Your task to perform on an android device: open app "ZOOM Cloud Meetings" (install if not already installed), go to login, and select forgot password Image 0: 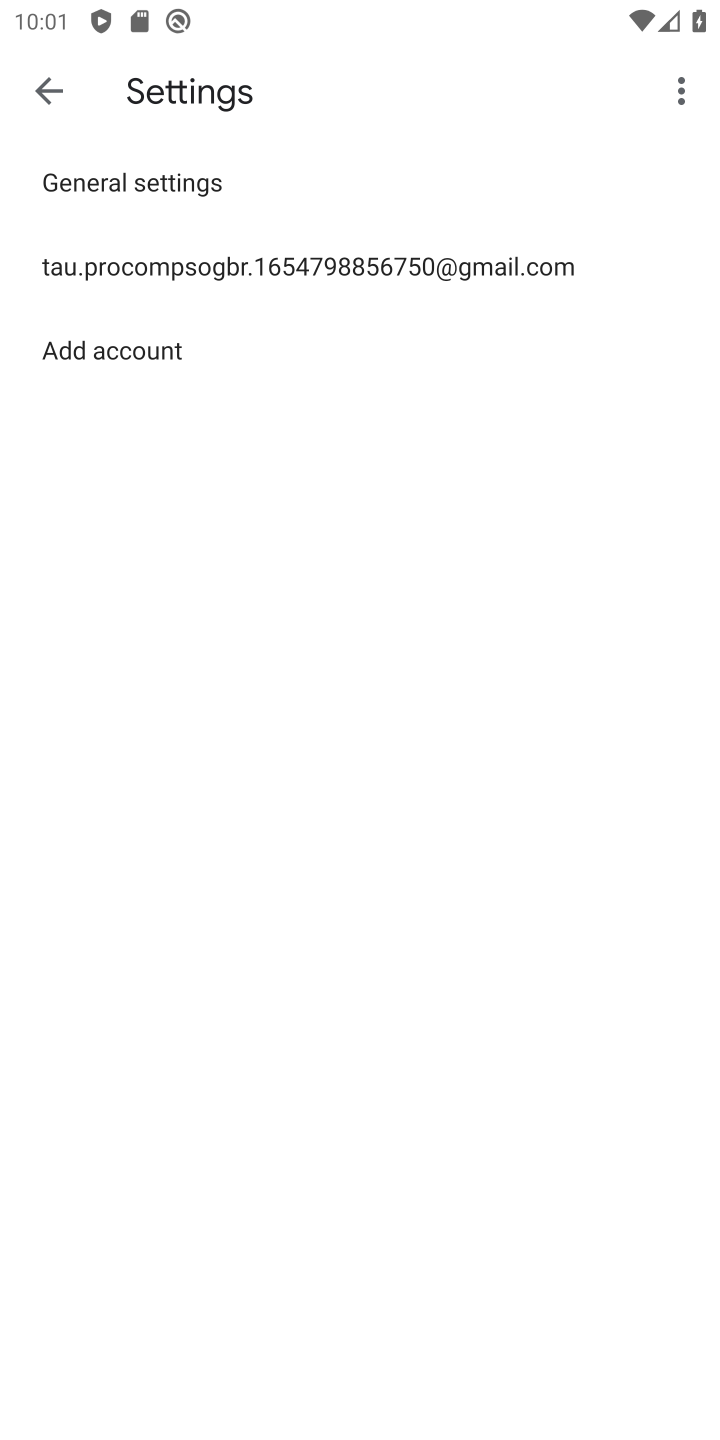
Step 0: press back button
Your task to perform on an android device: open app "ZOOM Cloud Meetings" (install if not already installed), go to login, and select forgot password Image 1: 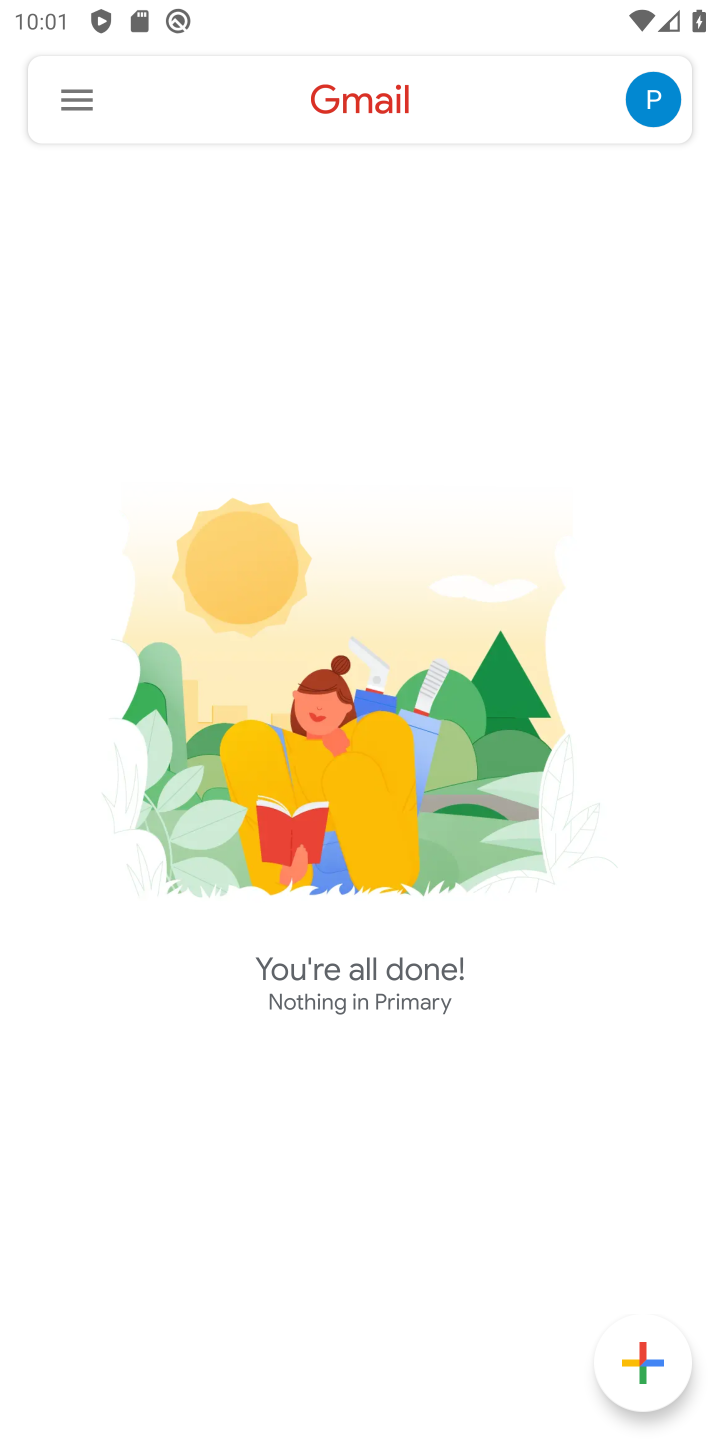
Step 1: press home button
Your task to perform on an android device: open app "ZOOM Cloud Meetings" (install if not already installed), go to login, and select forgot password Image 2: 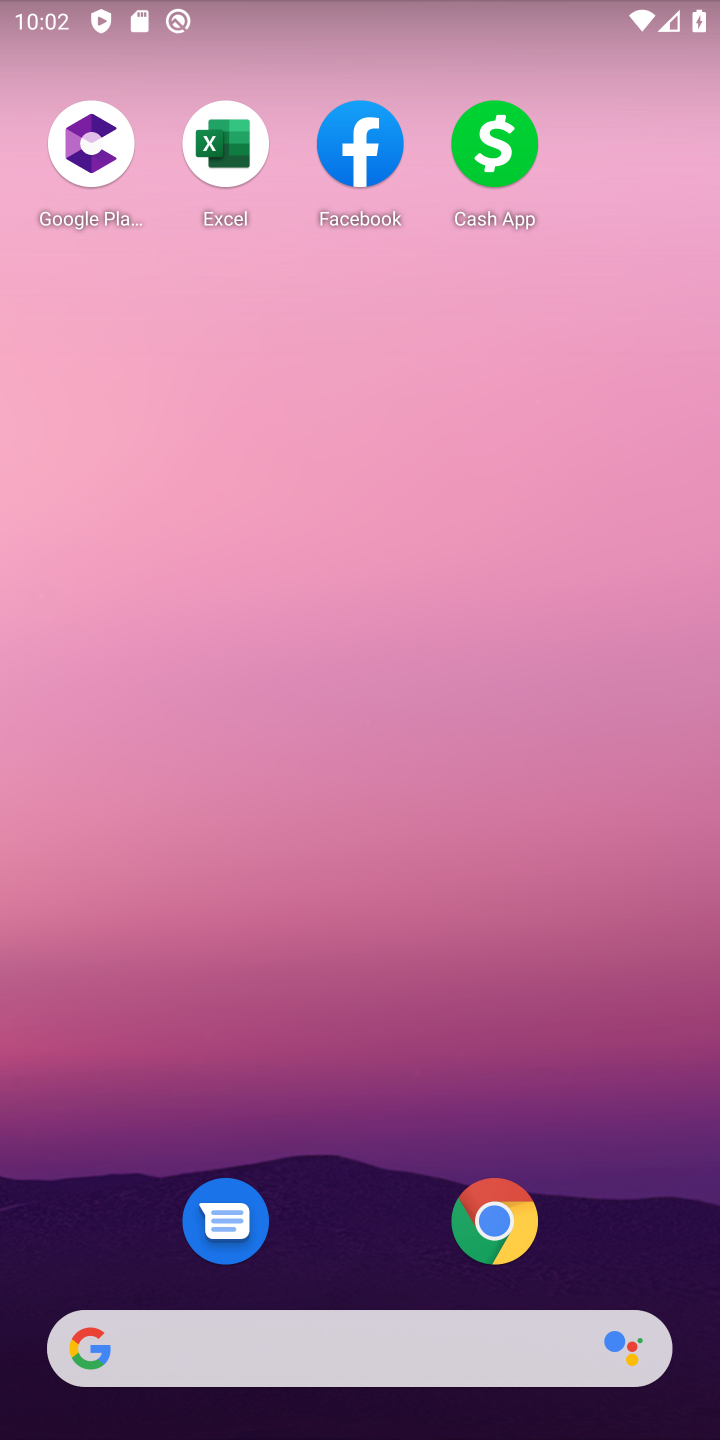
Step 2: drag from (387, 1321) to (393, 442)
Your task to perform on an android device: open app "ZOOM Cloud Meetings" (install if not already installed), go to login, and select forgot password Image 3: 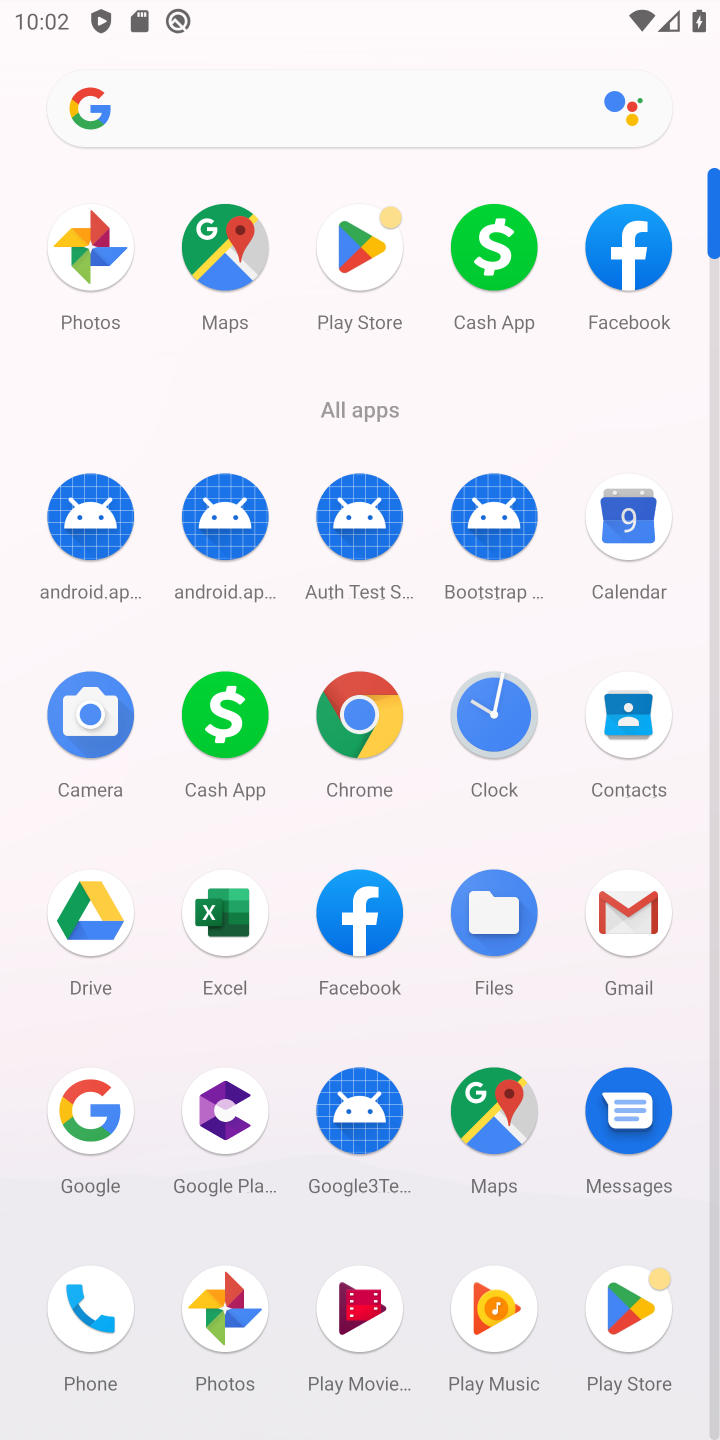
Step 3: click (638, 1307)
Your task to perform on an android device: open app "ZOOM Cloud Meetings" (install if not already installed), go to login, and select forgot password Image 4: 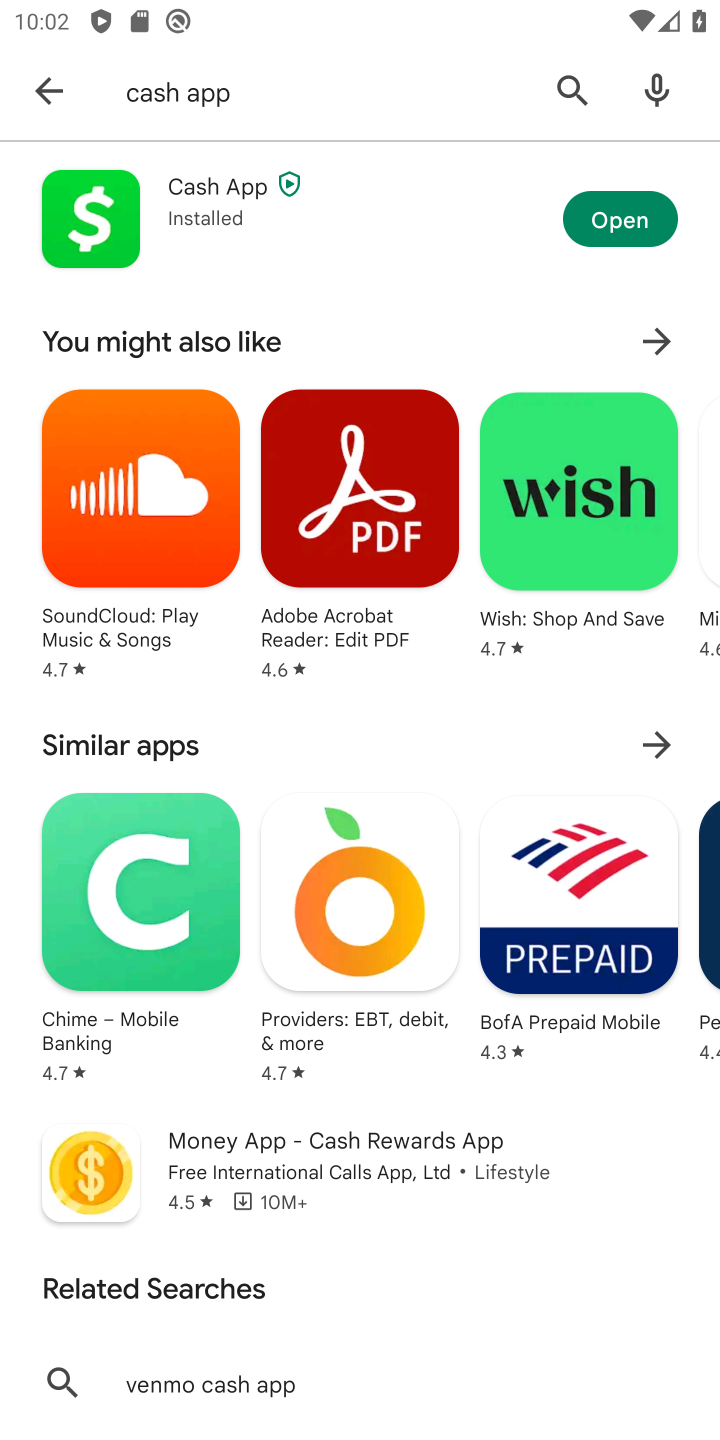
Step 4: click (680, 94)
Your task to perform on an android device: open app "ZOOM Cloud Meetings" (install if not already installed), go to login, and select forgot password Image 5: 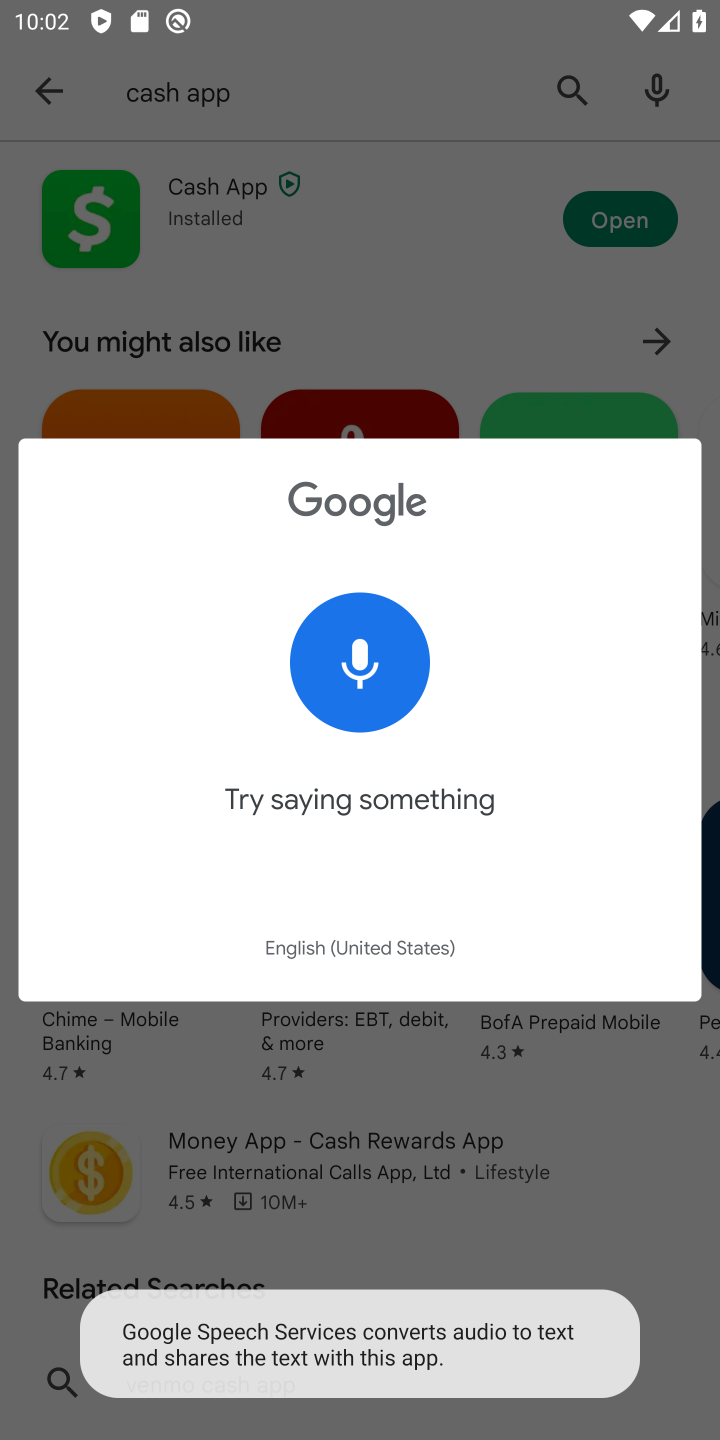
Step 5: click (265, 1030)
Your task to perform on an android device: open app "ZOOM Cloud Meetings" (install if not already installed), go to login, and select forgot password Image 6: 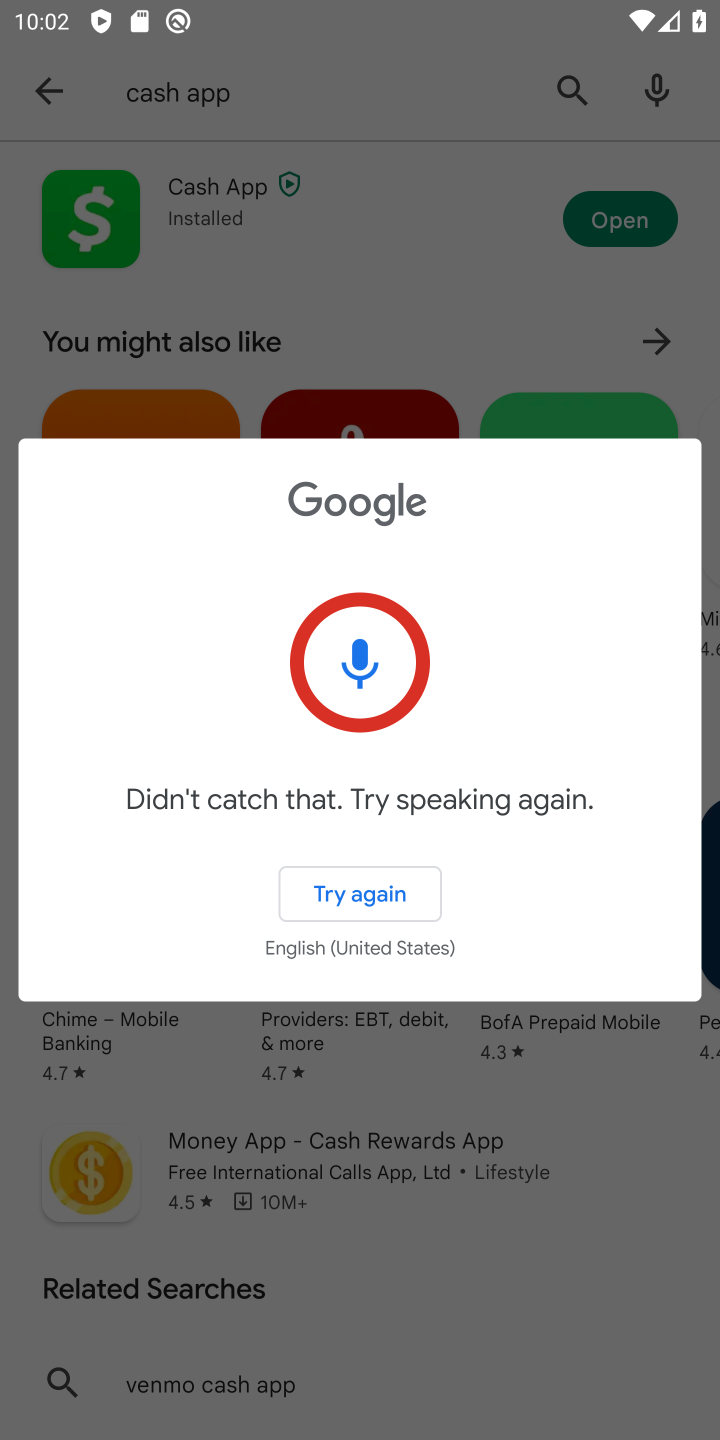
Step 6: click (202, 654)
Your task to perform on an android device: open app "ZOOM Cloud Meetings" (install if not already installed), go to login, and select forgot password Image 7: 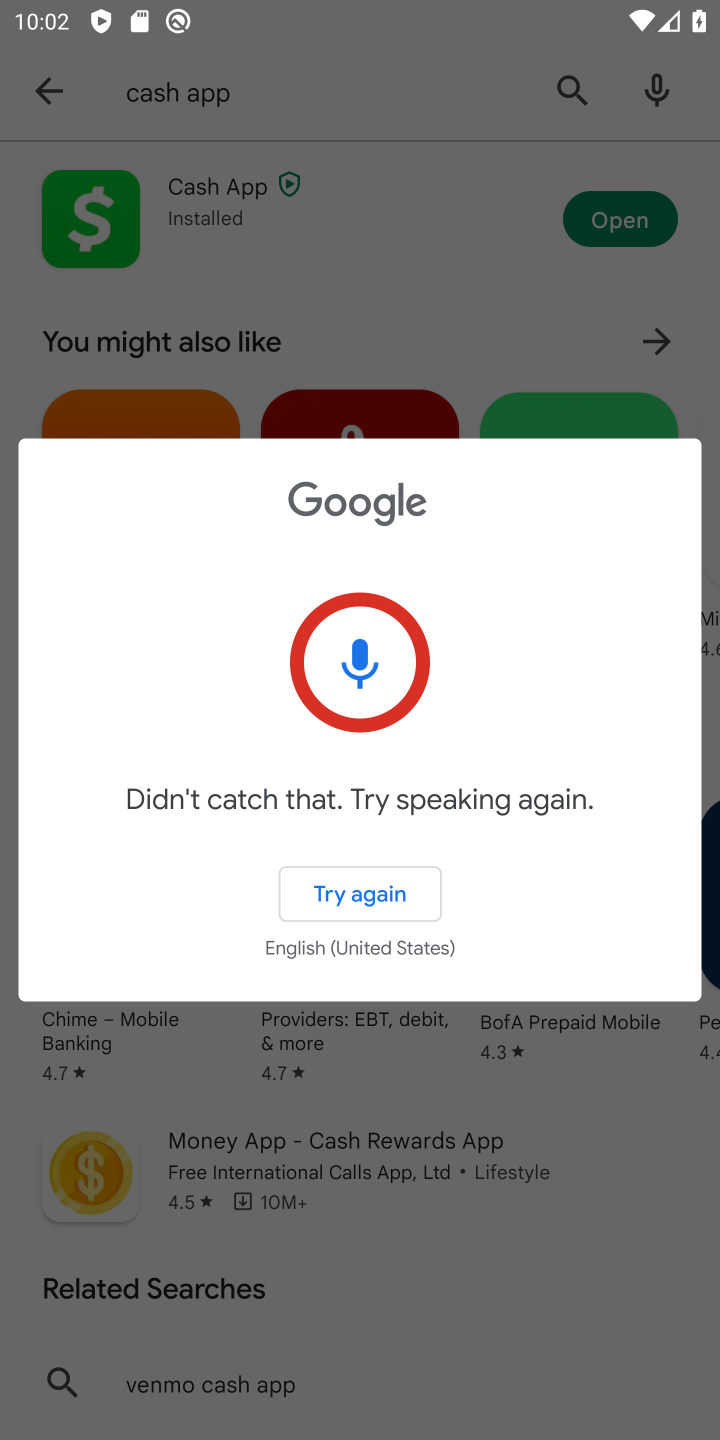
Step 7: click (342, 420)
Your task to perform on an android device: open app "ZOOM Cloud Meetings" (install if not already installed), go to login, and select forgot password Image 8: 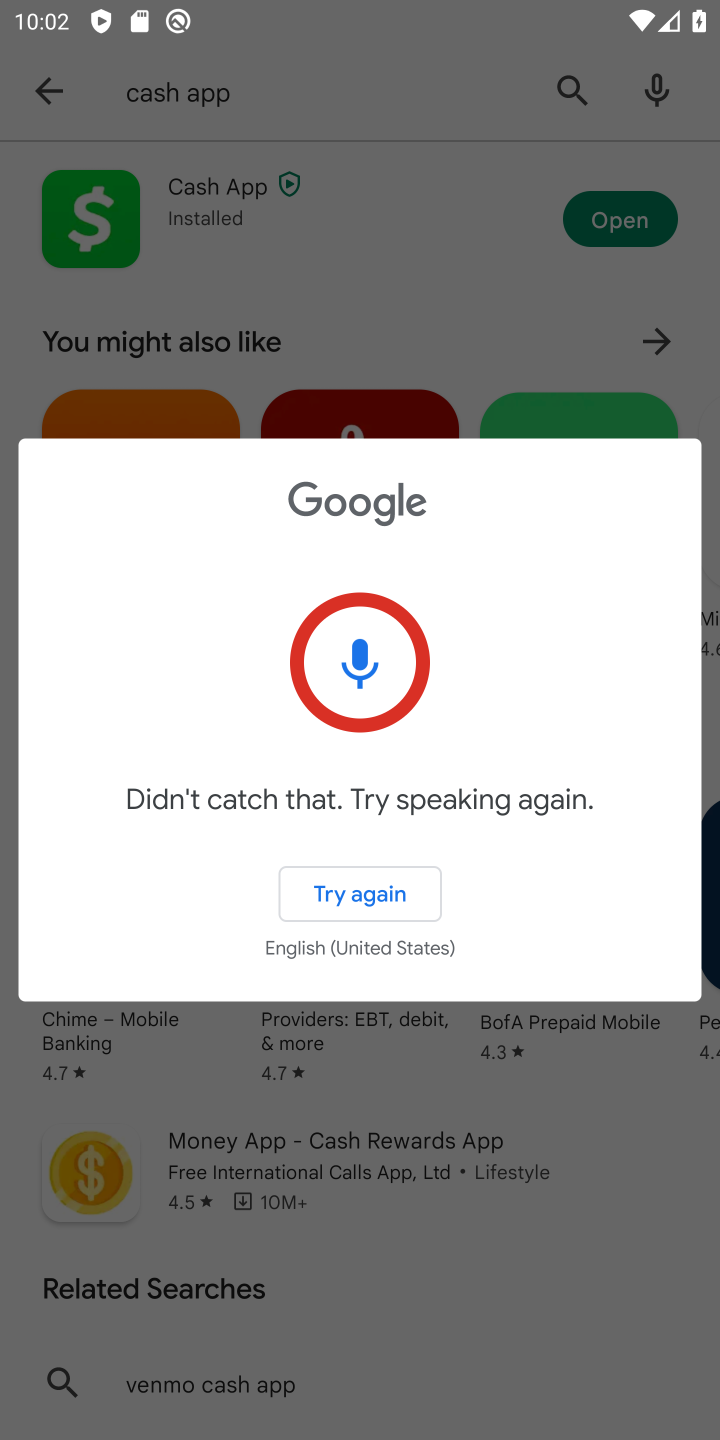
Step 8: click (253, 436)
Your task to perform on an android device: open app "ZOOM Cloud Meetings" (install if not already installed), go to login, and select forgot password Image 9: 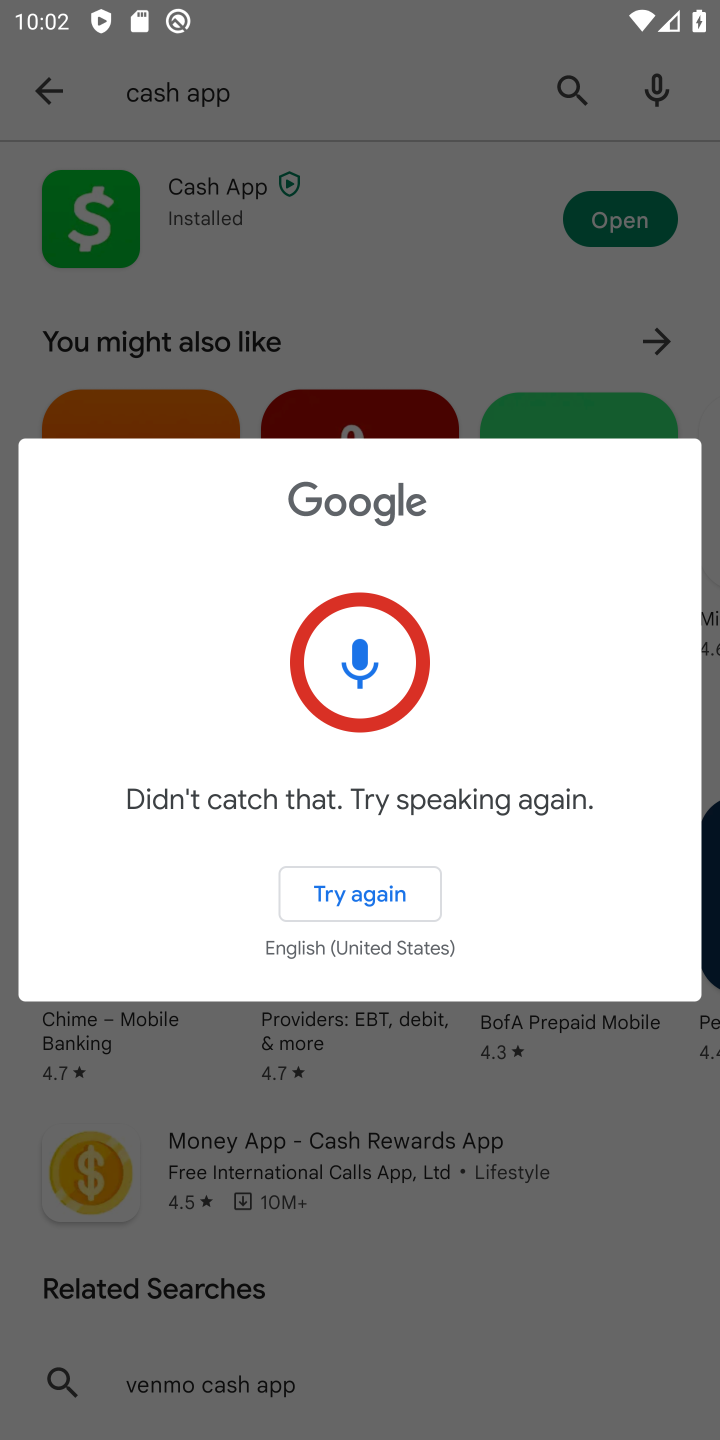
Step 9: click (708, 999)
Your task to perform on an android device: open app "ZOOM Cloud Meetings" (install if not already installed), go to login, and select forgot password Image 10: 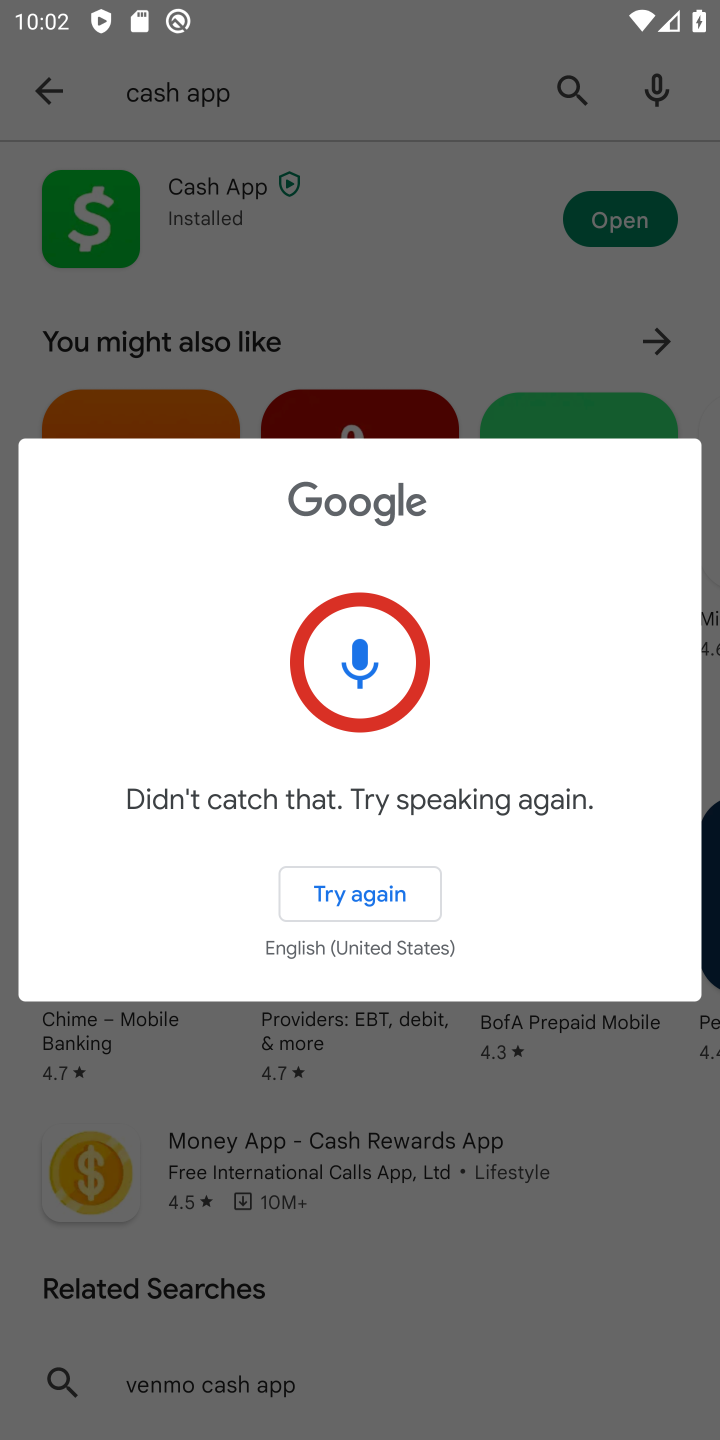
Step 10: click (570, 88)
Your task to perform on an android device: open app "ZOOM Cloud Meetings" (install if not already installed), go to login, and select forgot password Image 11: 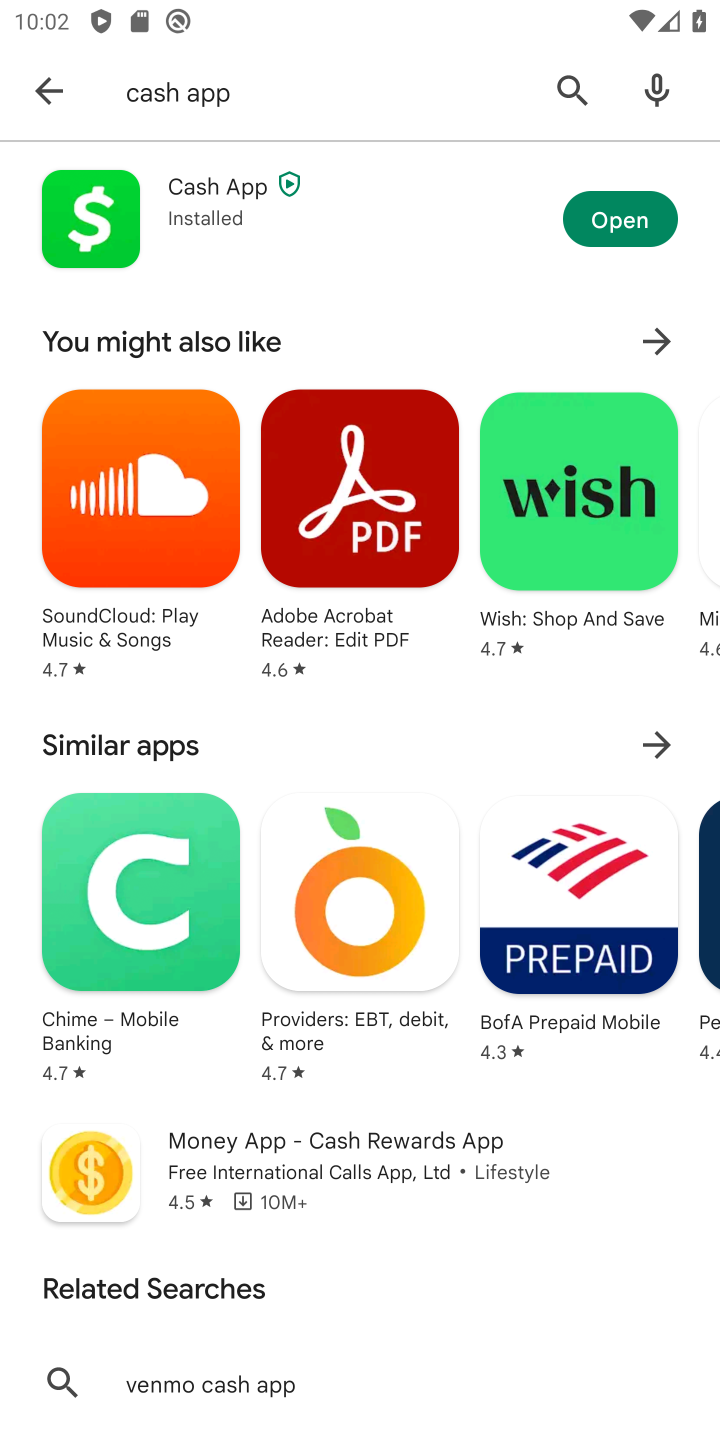
Step 11: click (568, 90)
Your task to perform on an android device: open app "ZOOM Cloud Meetings" (install if not already installed), go to login, and select forgot password Image 12: 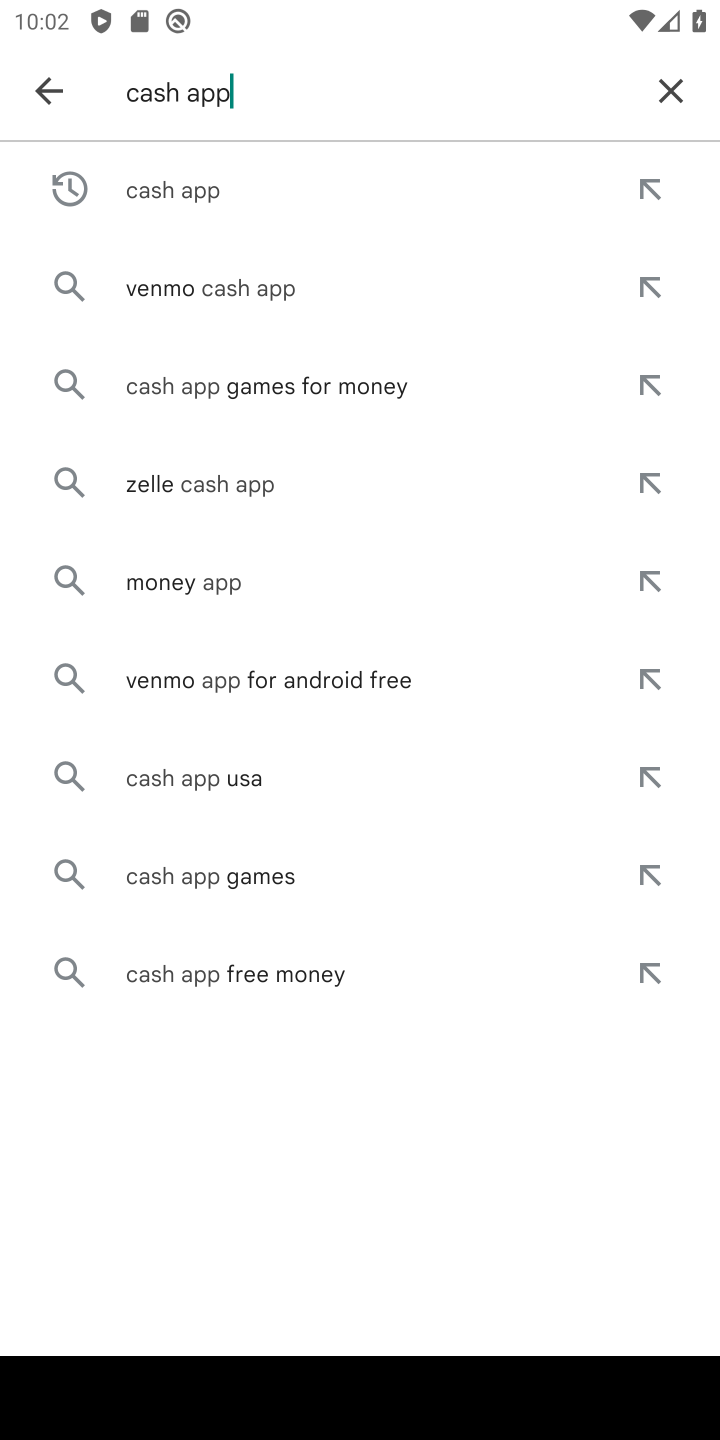
Step 12: click (651, 107)
Your task to perform on an android device: open app "ZOOM Cloud Meetings" (install if not already installed), go to login, and select forgot password Image 13: 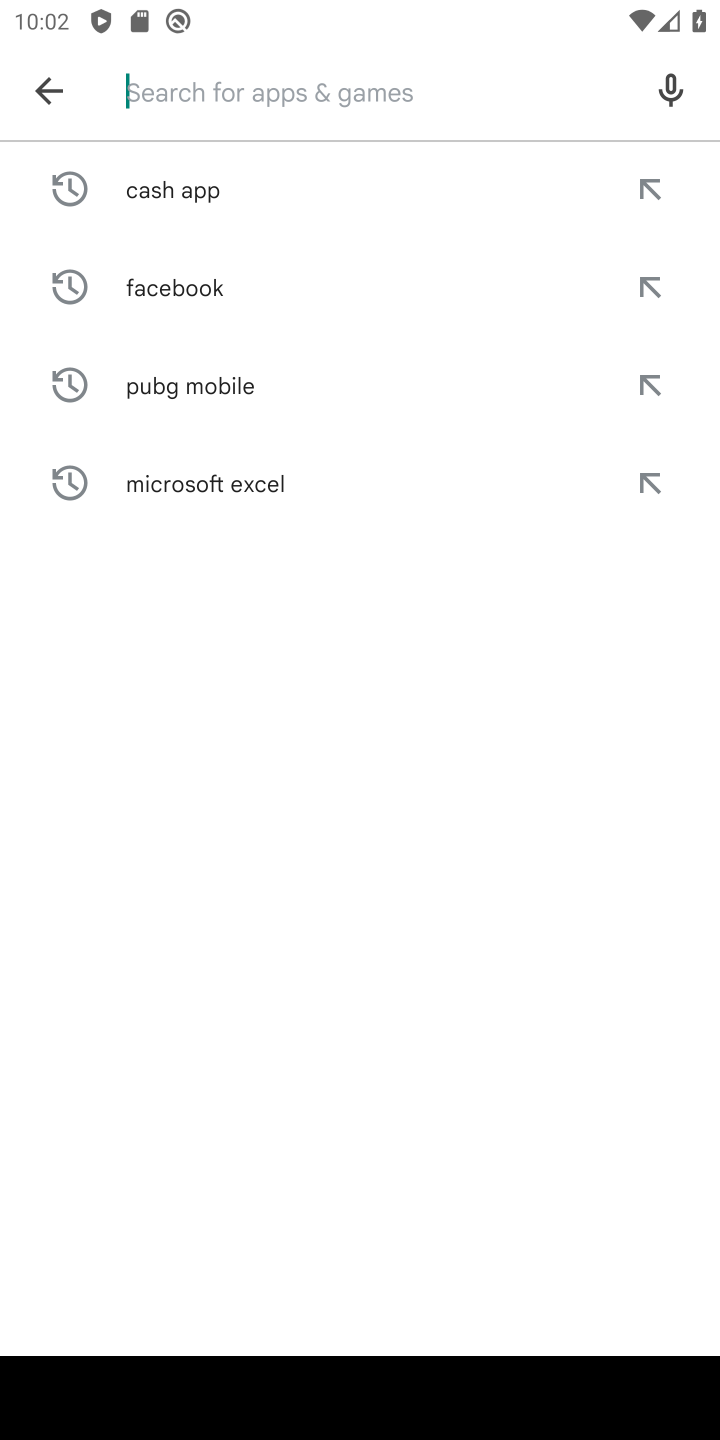
Step 13: type "ZOOM Cloud Meetings"
Your task to perform on an android device: open app "ZOOM Cloud Meetings" (install if not already installed), go to login, and select forgot password Image 14: 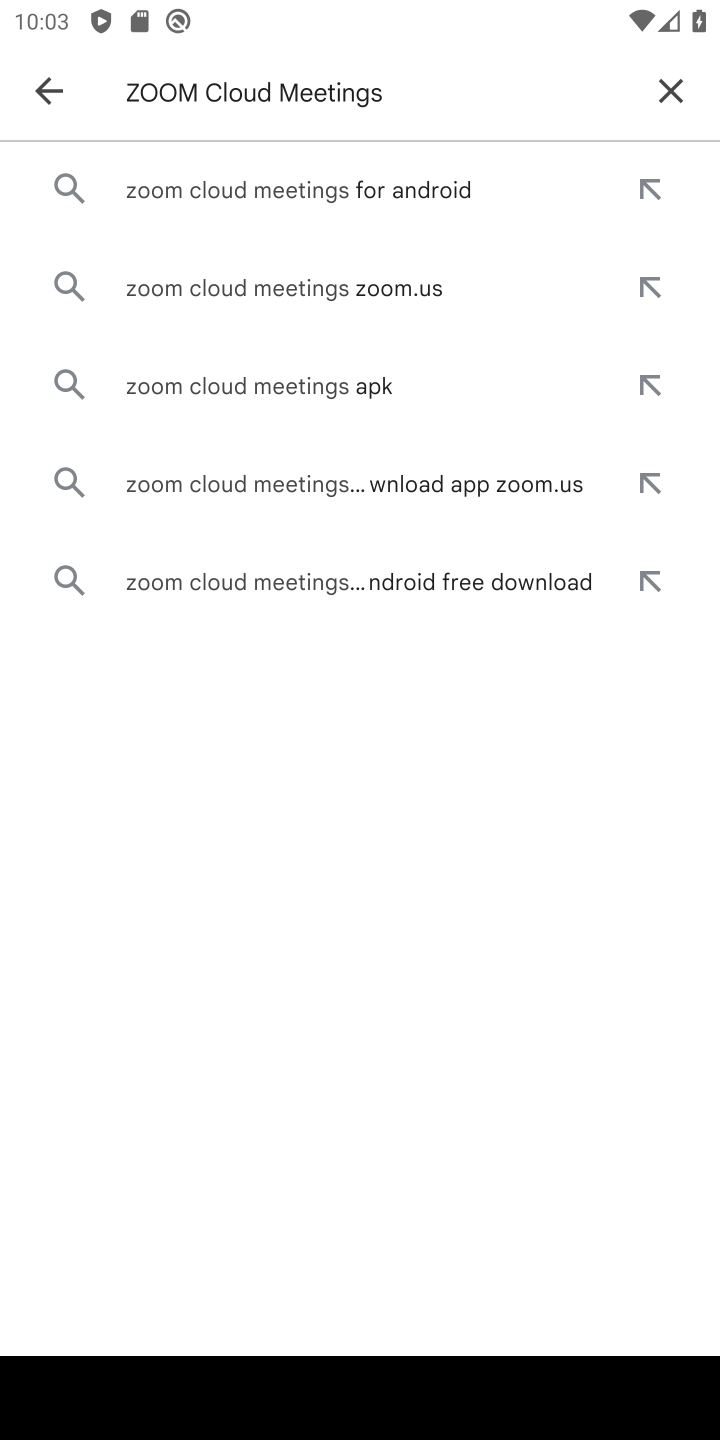
Step 14: click (423, 177)
Your task to perform on an android device: open app "ZOOM Cloud Meetings" (install if not already installed), go to login, and select forgot password Image 15: 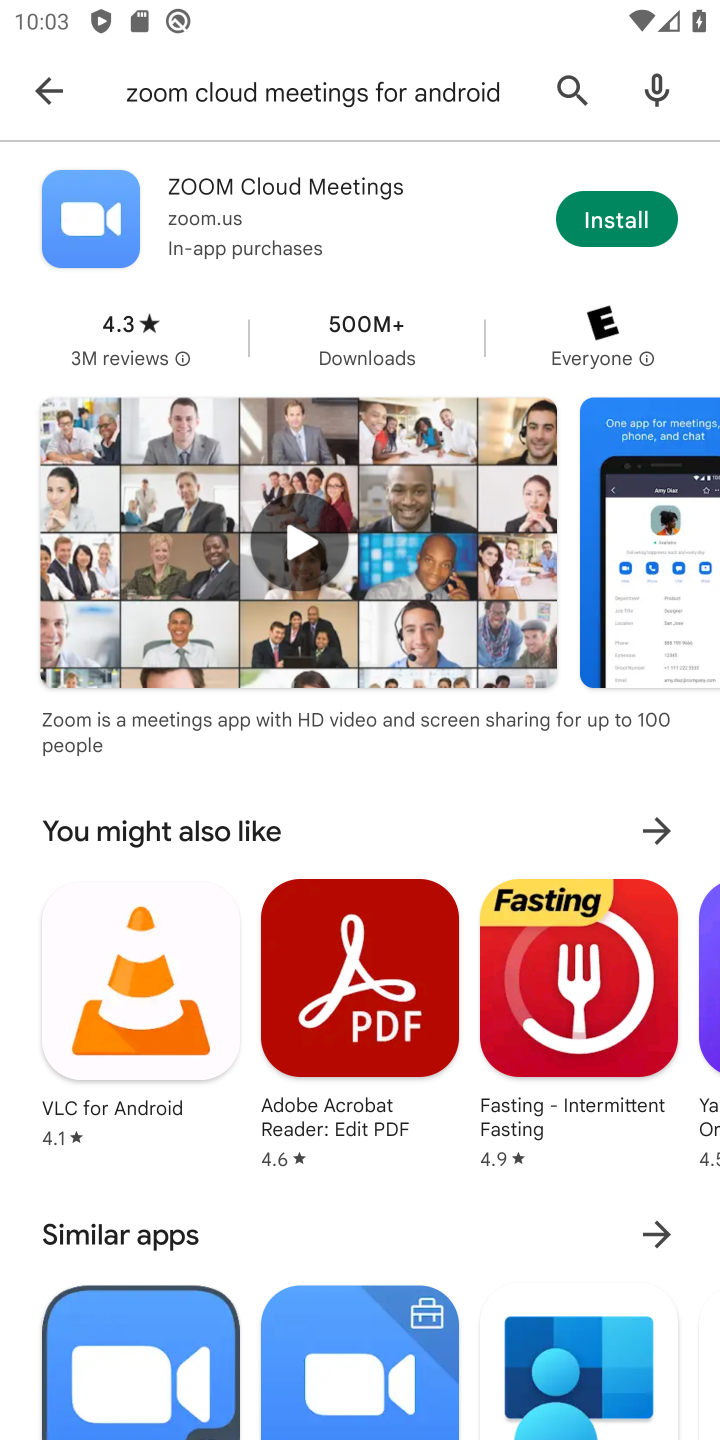
Step 15: click (573, 211)
Your task to perform on an android device: open app "ZOOM Cloud Meetings" (install if not already installed), go to login, and select forgot password Image 16: 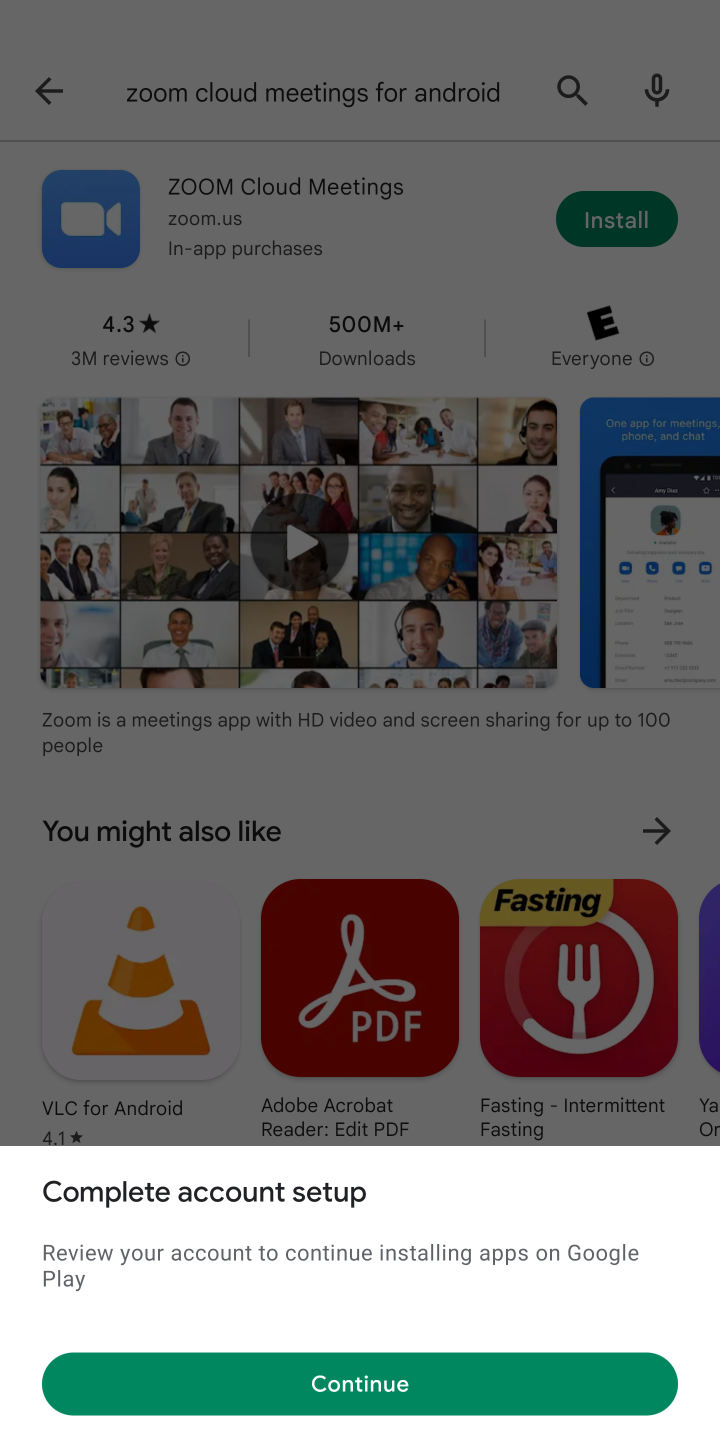
Step 16: click (365, 1391)
Your task to perform on an android device: open app "ZOOM Cloud Meetings" (install if not already installed), go to login, and select forgot password Image 17: 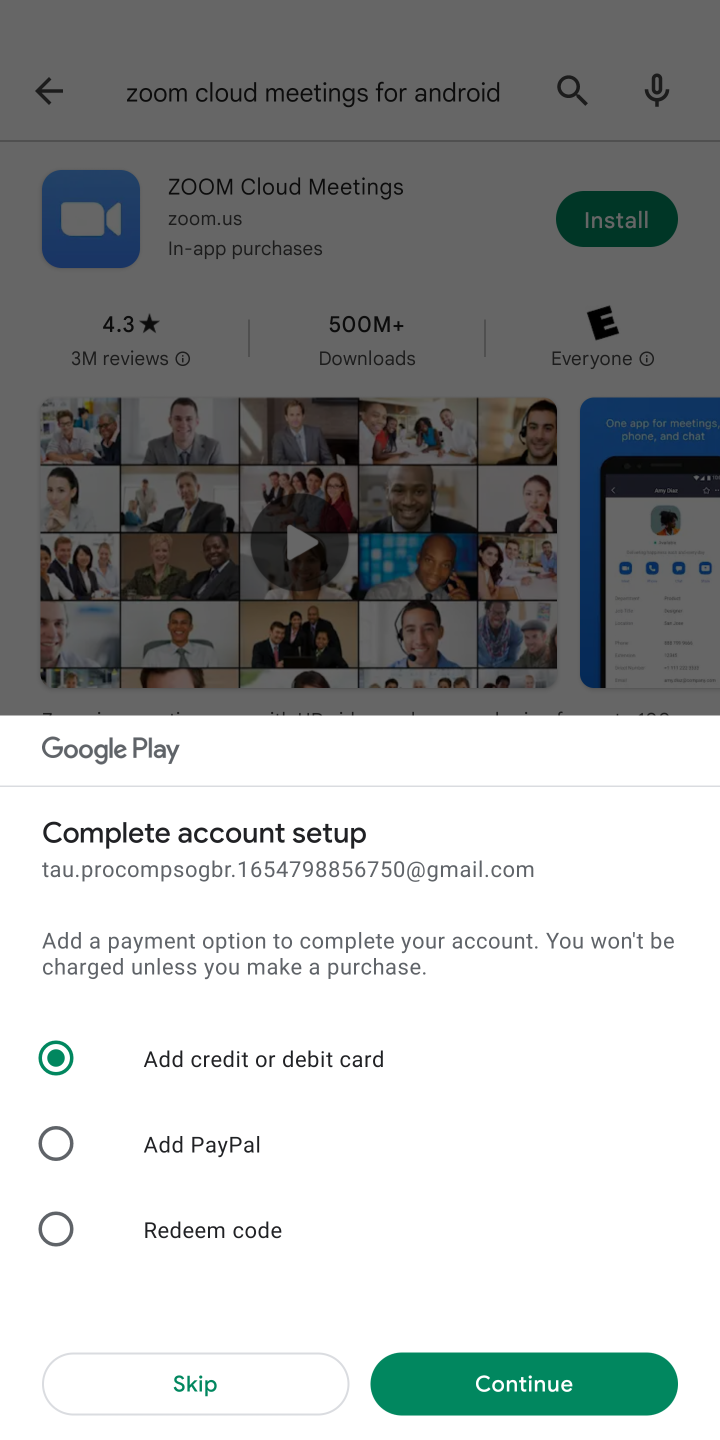
Step 17: click (242, 1384)
Your task to perform on an android device: open app "ZOOM Cloud Meetings" (install if not already installed), go to login, and select forgot password Image 18: 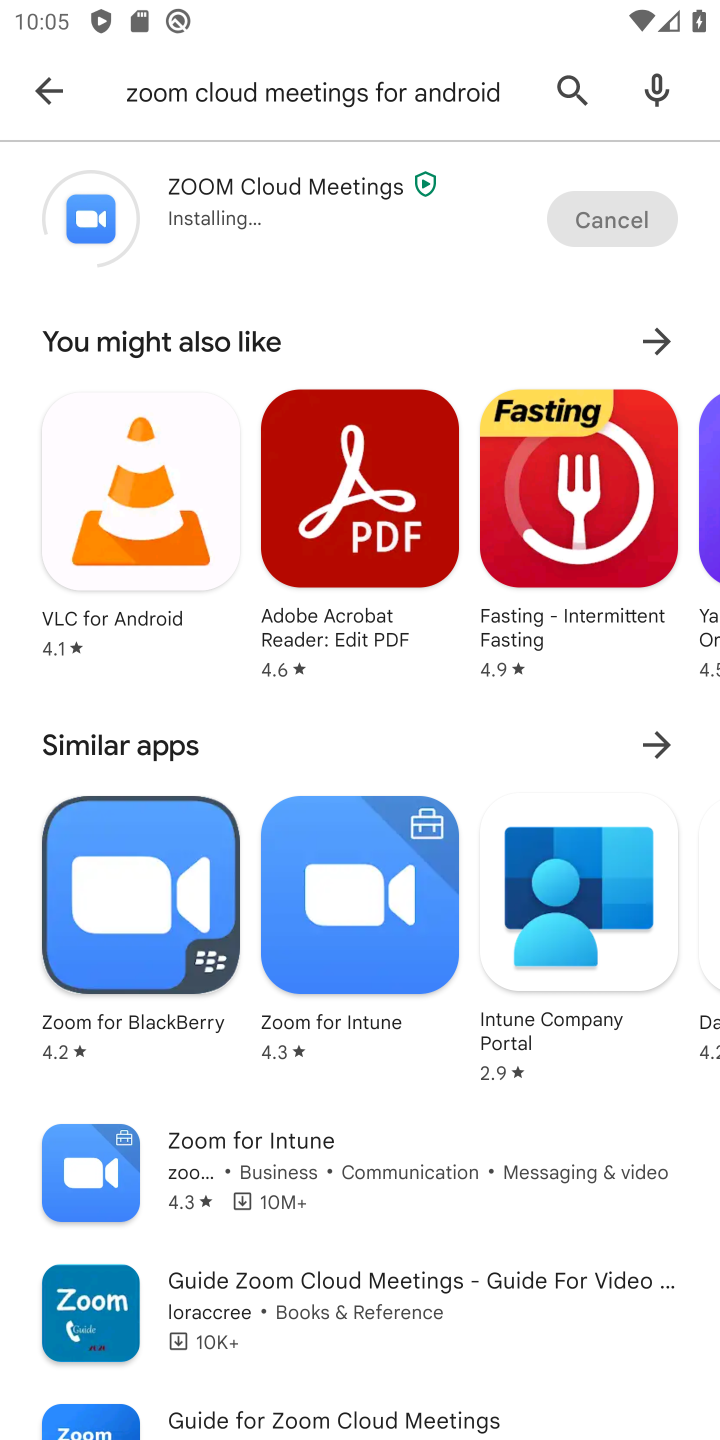
Step 18: task complete